Your task to perform on an android device: Open Maps and search for coffee Image 0: 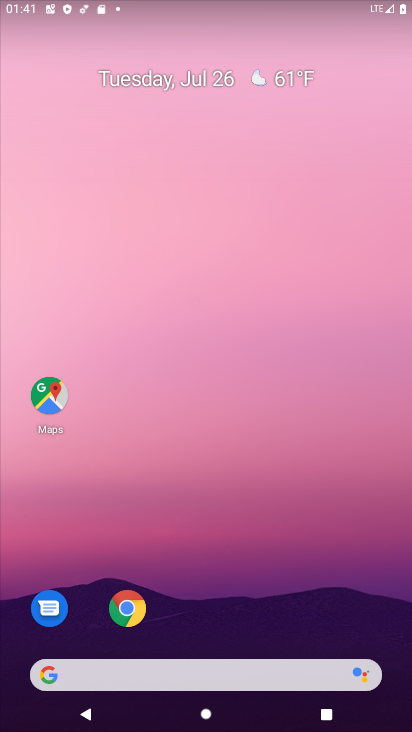
Step 0: click (56, 391)
Your task to perform on an android device: Open Maps and search for coffee Image 1: 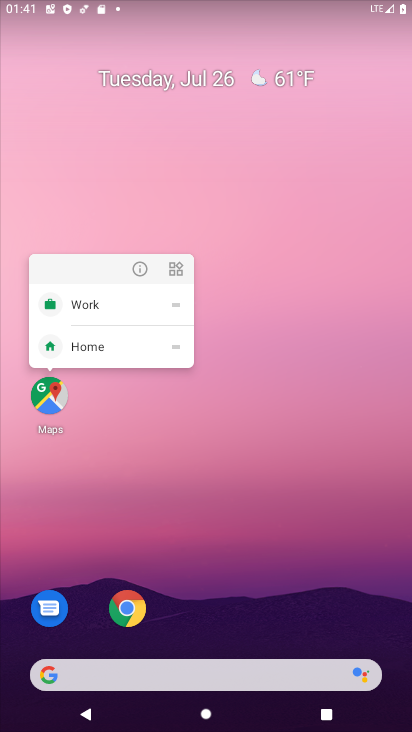
Step 1: click (58, 386)
Your task to perform on an android device: Open Maps and search for coffee Image 2: 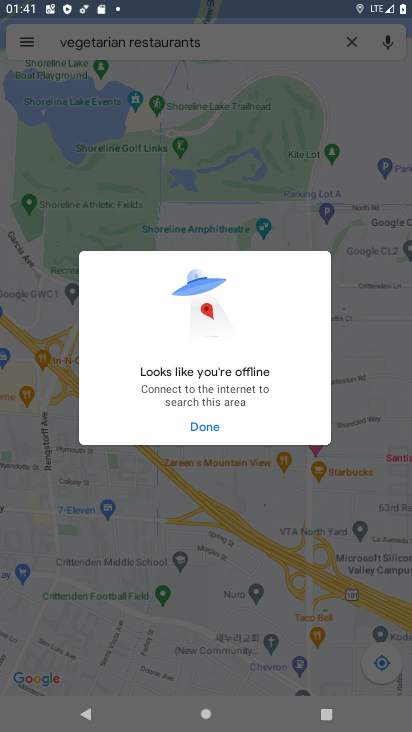
Step 2: click (212, 424)
Your task to perform on an android device: Open Maps and search for coffee Image 3: 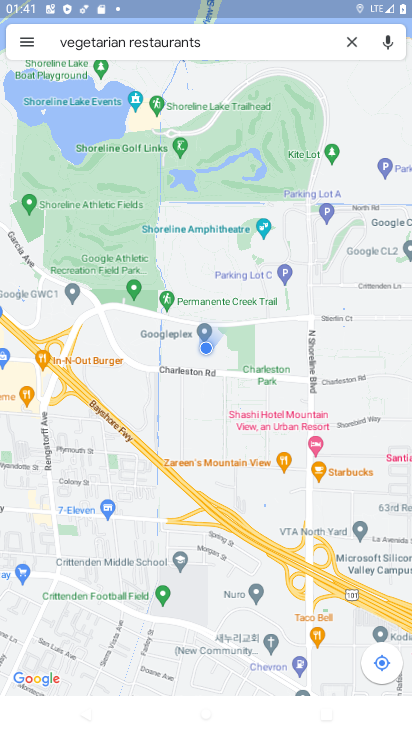
Step 3: click (351, 46)
Your task to perform on an android device: Open Maps and search for coffee Image 4: 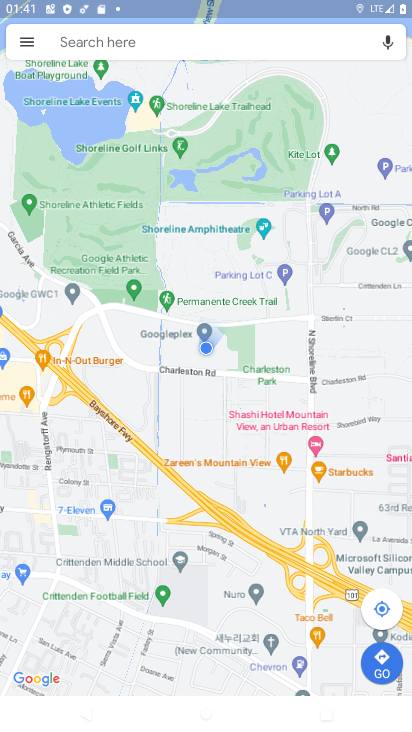
Step 4: click (213, 35)
Your task to perform on an android device: Open Maps and search for coffee Image 5: 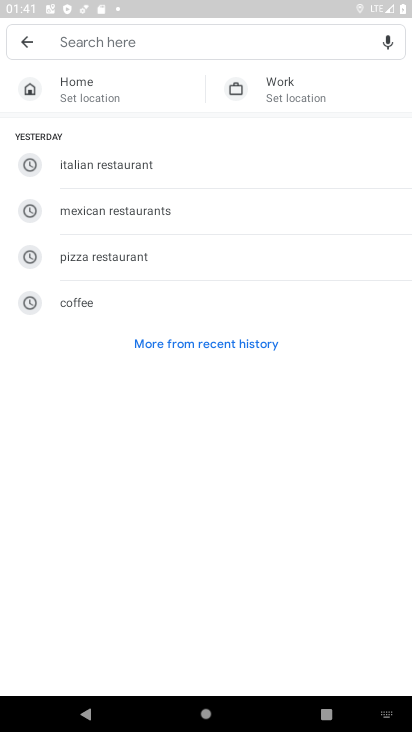
Step 5: click (163, 300)
Your task to perform on an android device: Open Maps and search for coffee Image 6: 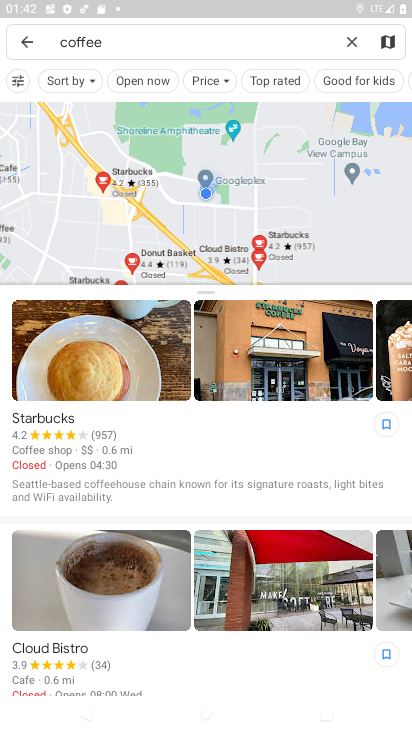
Step 6: task complete